Your task to perform on an android device: empty trash in google photos Image 0: 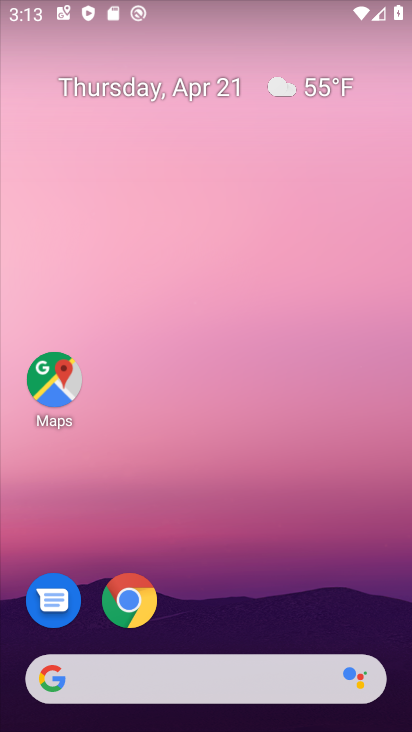
Step 0: drag from (221, 657) to (346, 93)
Your task to perform on an android device: empty trash in google photos Image 1: 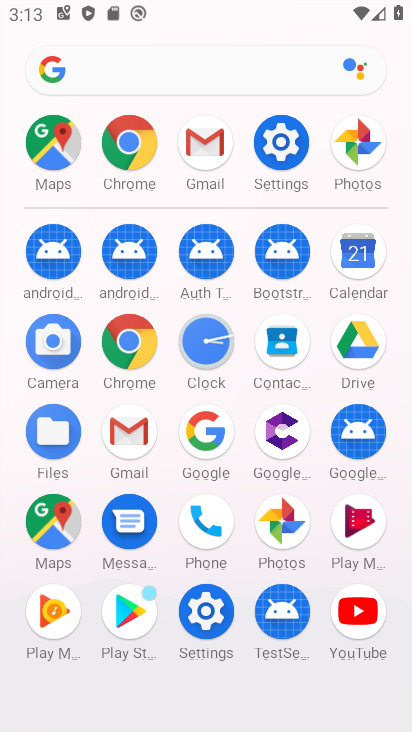
Step 1: click (361, 148)
Your task to perform on an android device: empty trash in google photos Image 2: 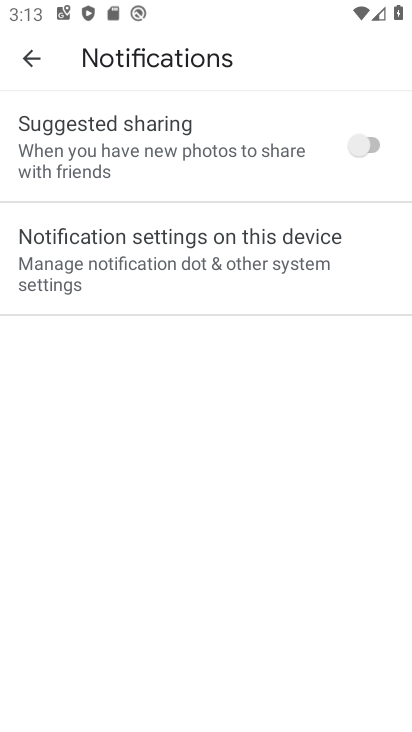
Step 2: click (35, 56)
Your task to perform on an android device: empty trash in google photos Image 3: 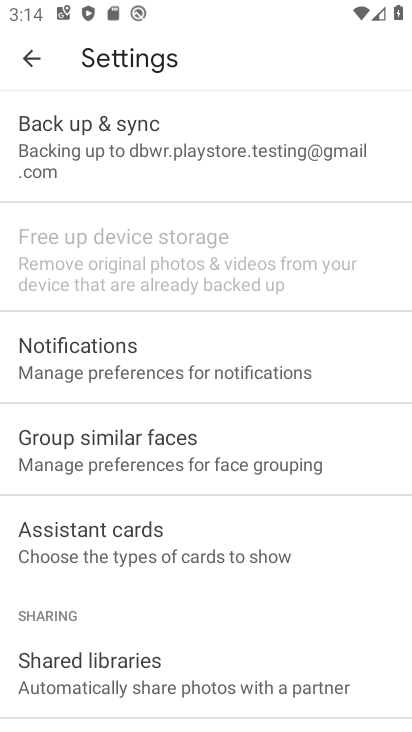
Step 3: click (29, 60)
Your task to perform on an android device: empty trash in google photos Image 4: 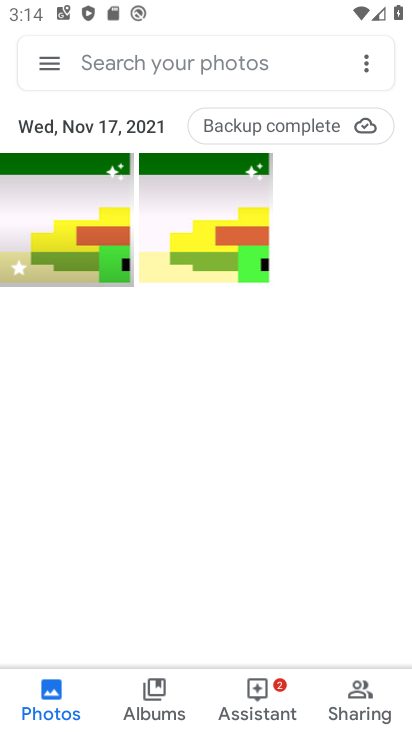
Step 4: click (48, 69)
Your task to perform on an android device: empty trash in google photos Image 5: 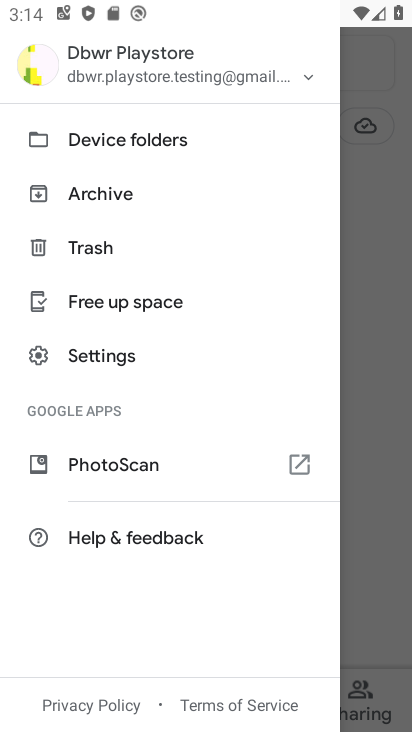
Step 5: click (106, 355)
Your task to perform on an android device: empty trash in google photos Image 6: 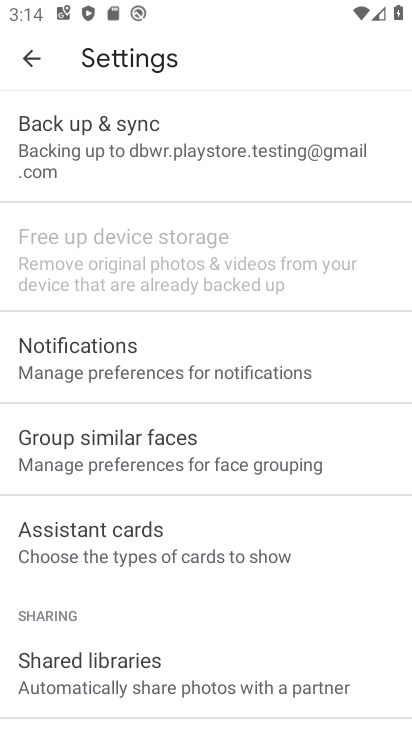
Step 6: click (33, 55)
Your task to perform on an android device: empty trash in google photos Image 7: 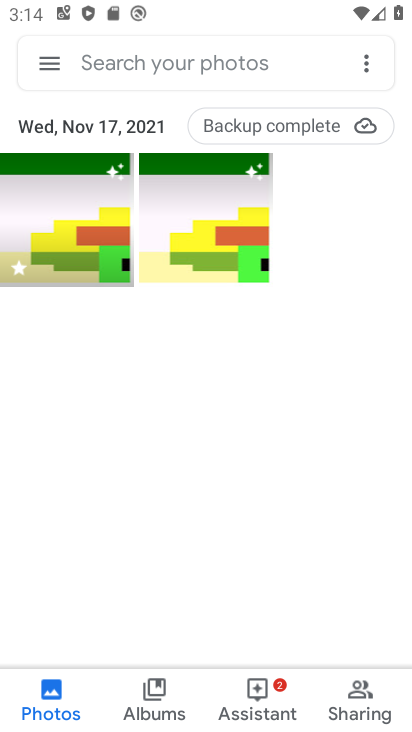
Step 7: click (54, 66)
Your task to perform on an android device: empty trash in google photos Image 8: 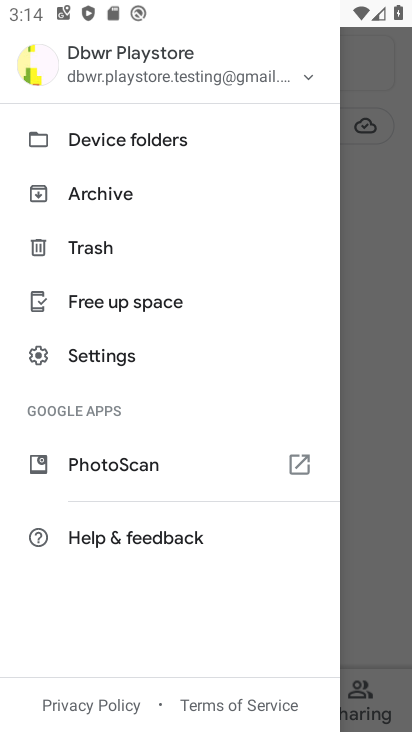
Step 8: click (104, 247)
Your task to perform on an android device: empty trash in google photos Image 9: 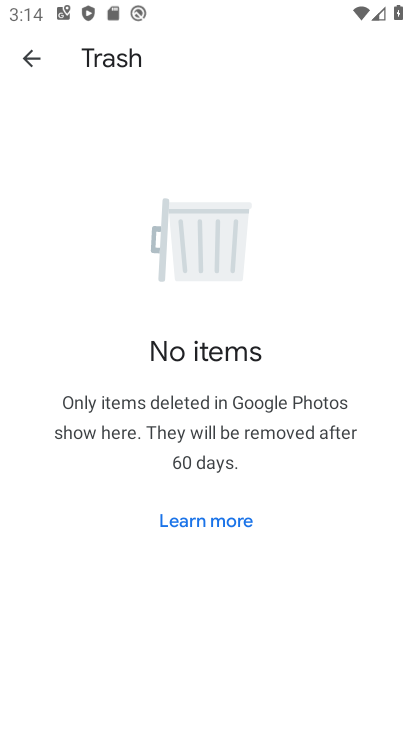
Step 9: task complete